Your task to perform on an android device: toggle notification dots Image 0: 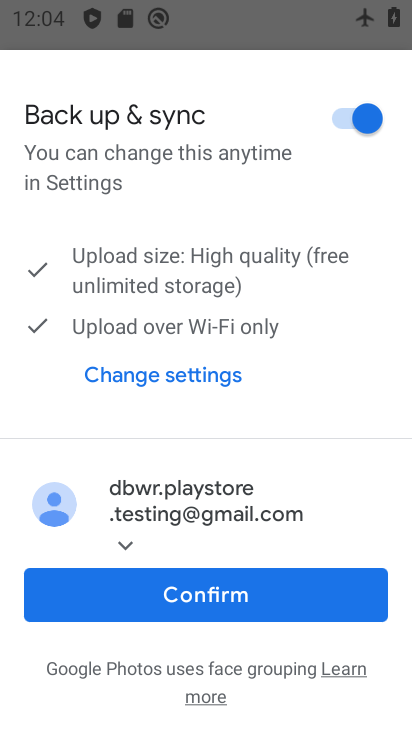
Step 0: press home button
Your task to perform on an android device: toggle notification dots Image 1: 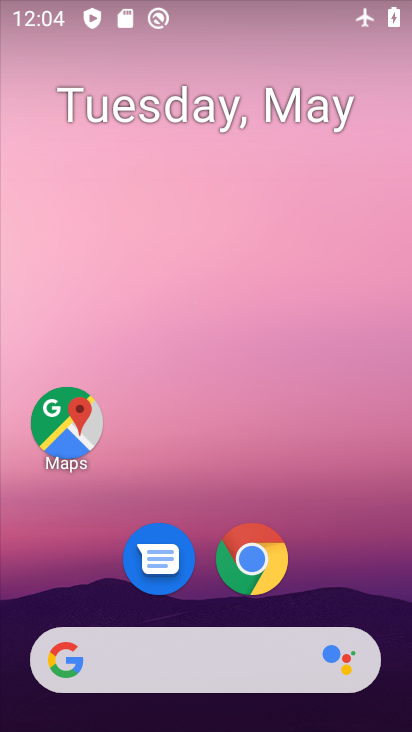
Step 1: drag from (80, 623) to (262, 141)
Your task to perform on an android device: toggle notification dots Image 2: 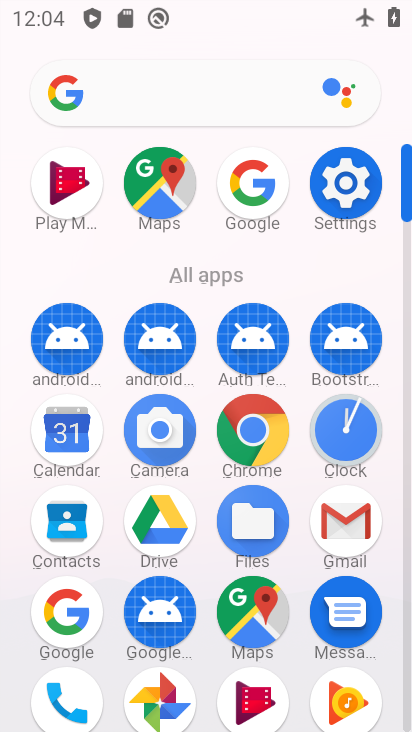
Step 2: drag from (198, 591) to (301, 316)
Your task to perform on an android device: toggle notification dots Image 3: 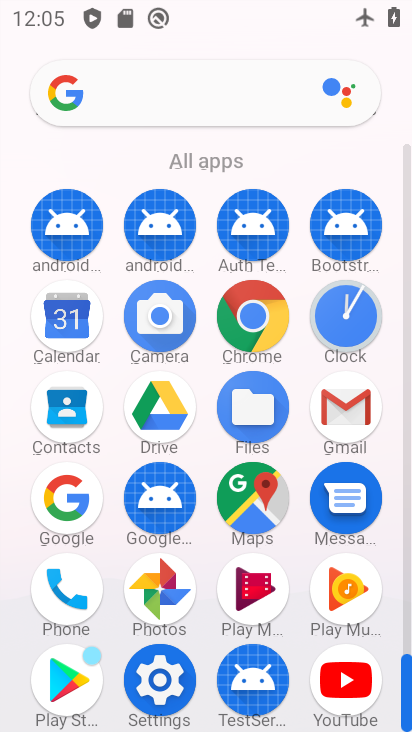
Step 3: click (144, 687)
Your task to perform on an android device: toggle notification dots Image 4: 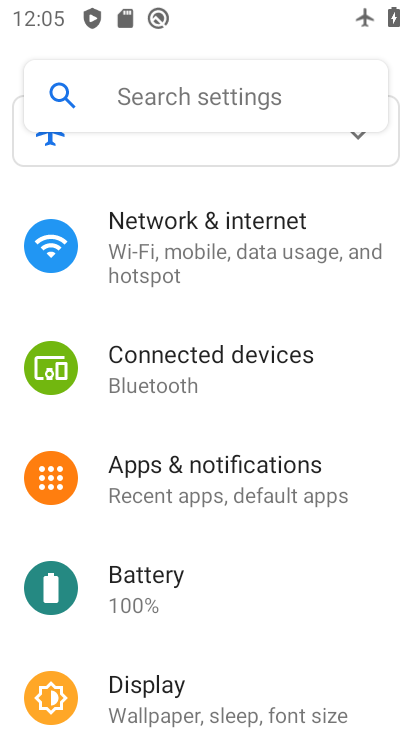
Step 4: click (240, 480)
Your task to perform on an android device: toggle notification dots Image 5: 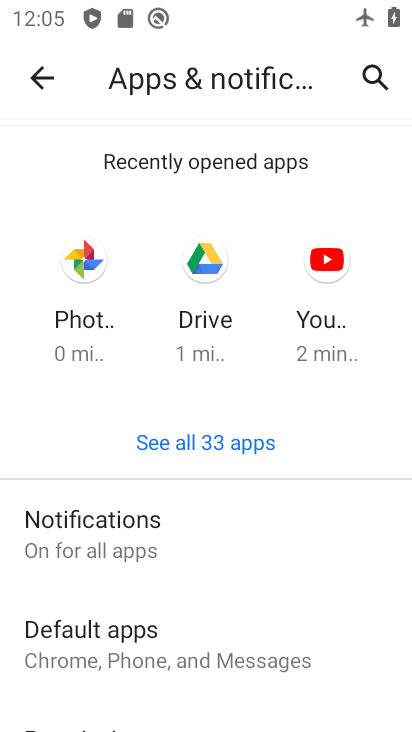
Step 5: drag from (219, 631) to (281, 443)
Your task to perform on an android device: toggle notification dots Image 6: 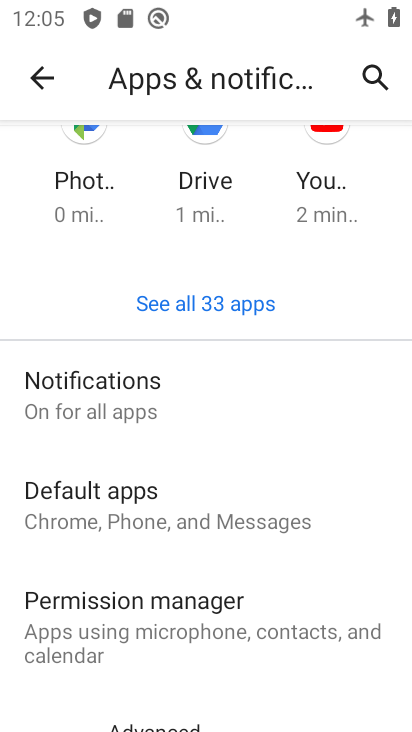
Step 6: click (189, 417)
Your task to perform on an android device: toggle notification dots Image 7: 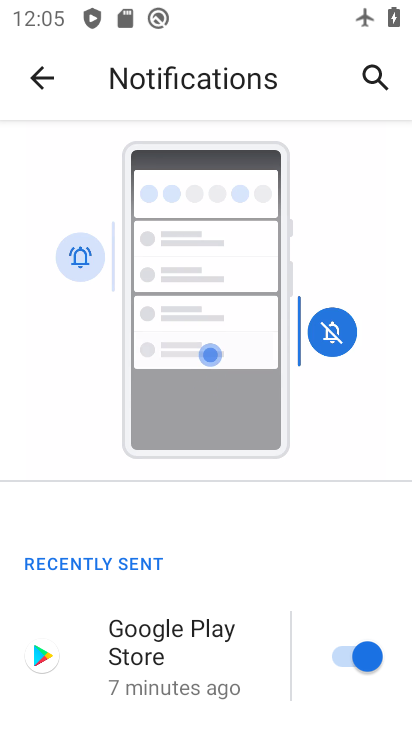
Step 7: drag from (152, 617) to (355, 159)
Your task to perform on an android device: toggle notification dots Image 8: 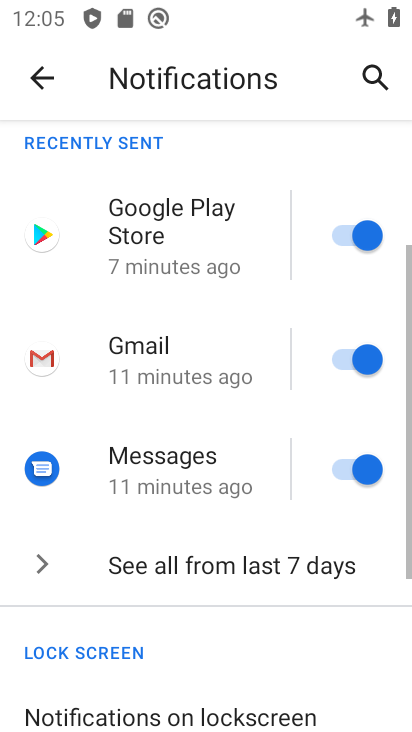
Step 8: drag from (217, 632) to (333, 188)
Your task to perform on an android device: toggle notification dots Image 9: 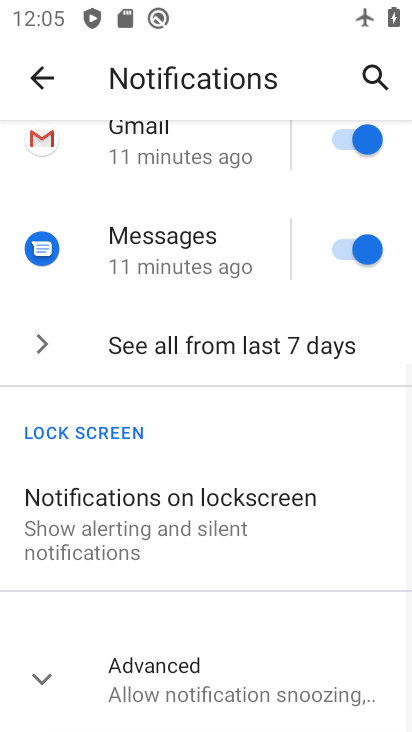
Step 9: drag from (147, 711) to (218, 378)
Your task to perform on an android device: toggle notification dots Image 10: 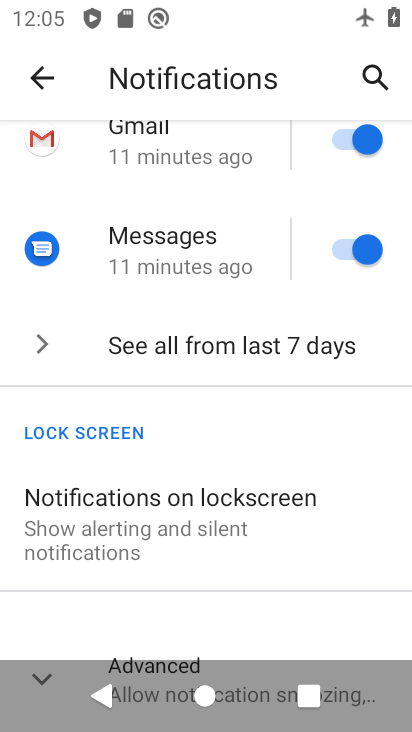
Step 10: click (189, 648)
Your task to perform on an android device: toggle notification dots Image 11: 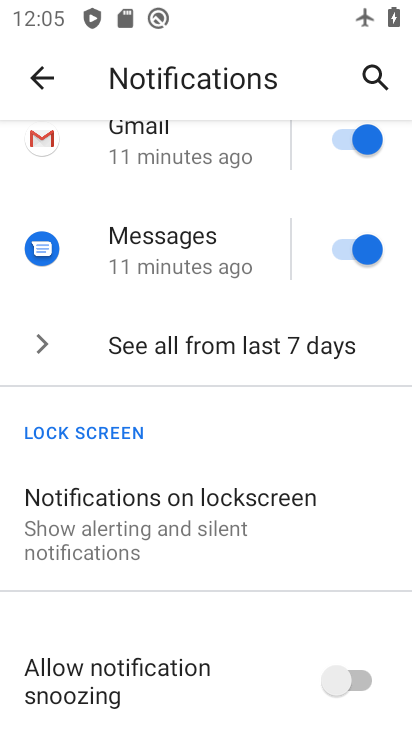
Step 11: drag from (168, 707) to (255, 297)
Your task to perform on an android device: toggle notification dots Image 12: 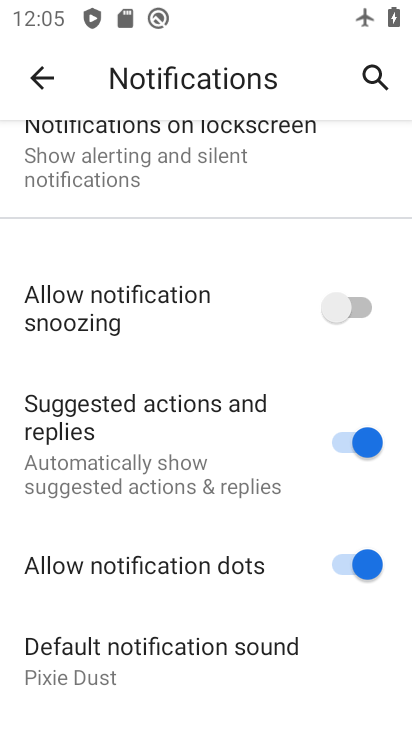
Step 12: click (351, 572)
Your task to perform on an android device: toggle notification dots Image 13: 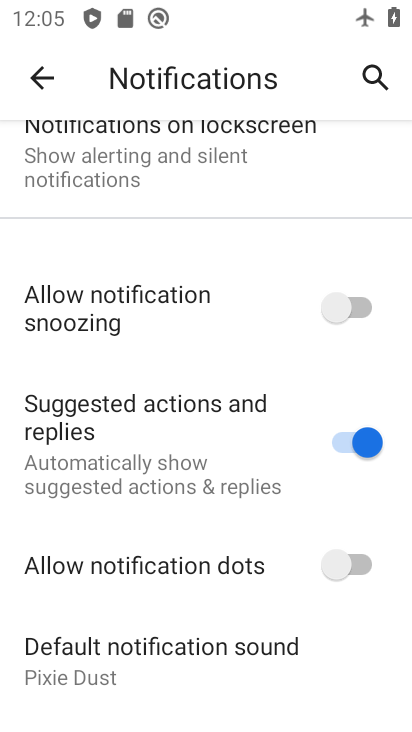
Step 13: task complete